Your task to perform on an android device: Open Youtube and go to "Your channel" Image 0: 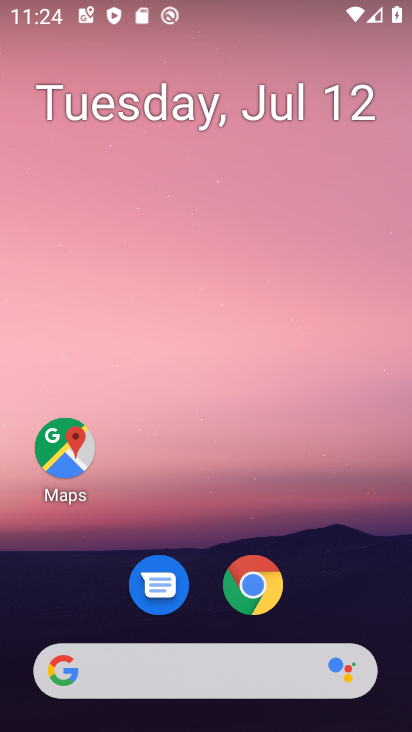
Step 0: drag from (324, 347) to (326, 51)
Your task to perform on an android device: Open Youtube and go to "Your channel" Image 1: 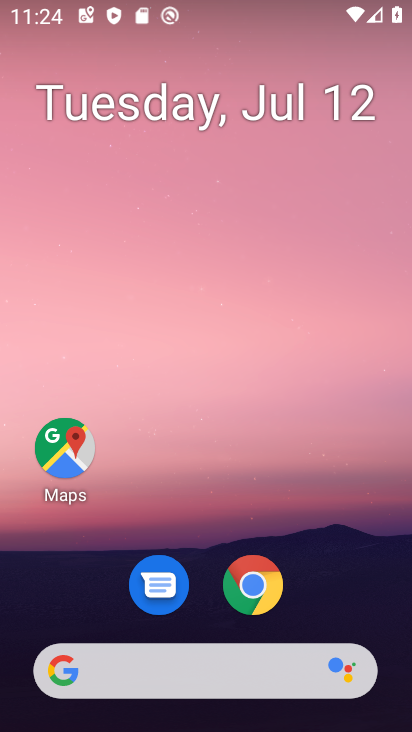
Step 1: drag from (309, 568) to (308, 25)
Your task to perform on an android device: Open Youtube and go to "Your channel" Image 2: 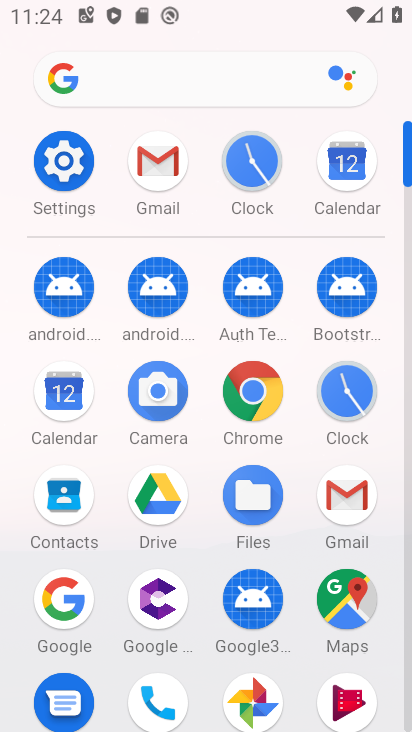
Step 2: drag from (309, 566) to (316, 264)
Your task to perform on an android device: Open Youtube and go to "Your channel" Image 3: 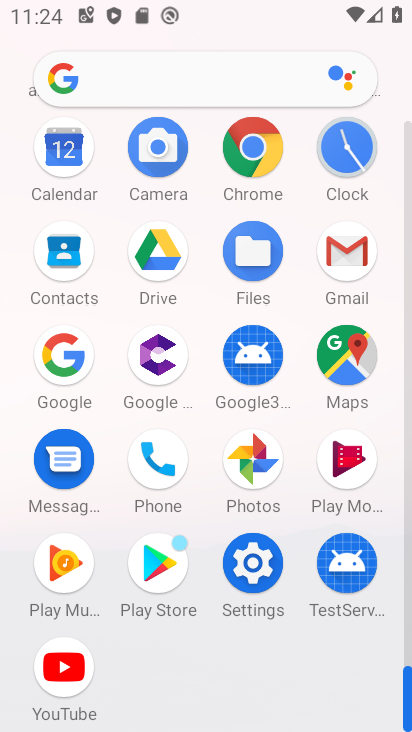
Step 3: click (71, 671)
Your task to perform on an android device: Open Youtube and go to "Your channel" Image 4: 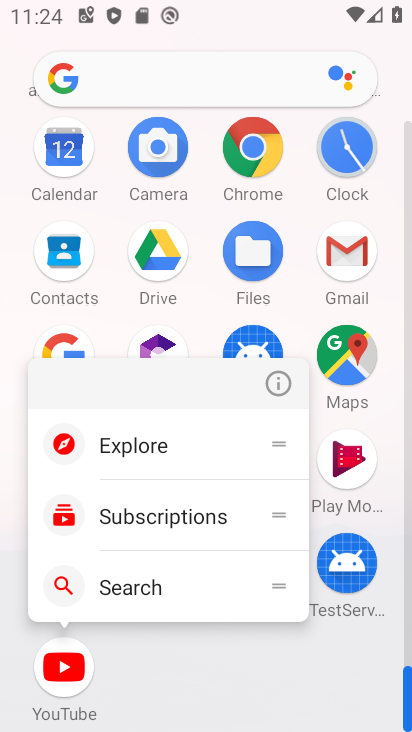
Step 4: click (77, 671)
Your task to perform on an android device: Open Youtube and go to "Your channel" Image 5: 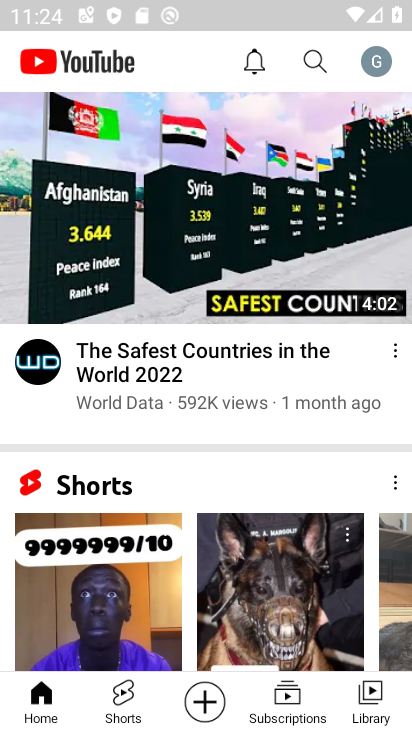
Step 5: click (374, 65)
Your task to perform on an android device: Open Youtube and go to "Your channel" Image 6: 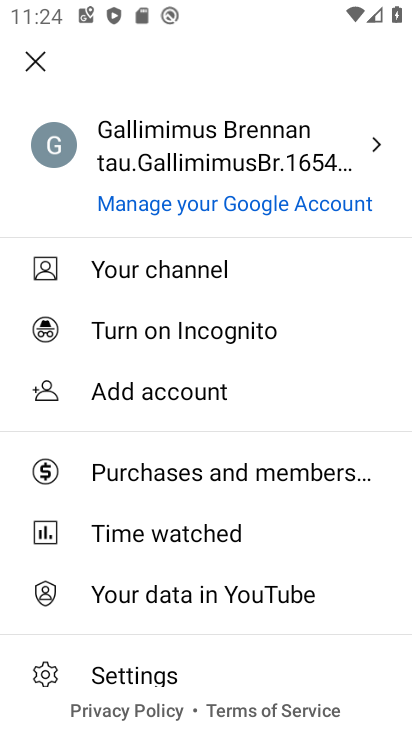
Step 6: click (196, 268)
Your task to perform on an android device: Open Youtube and go to "Your channel" Image 7: 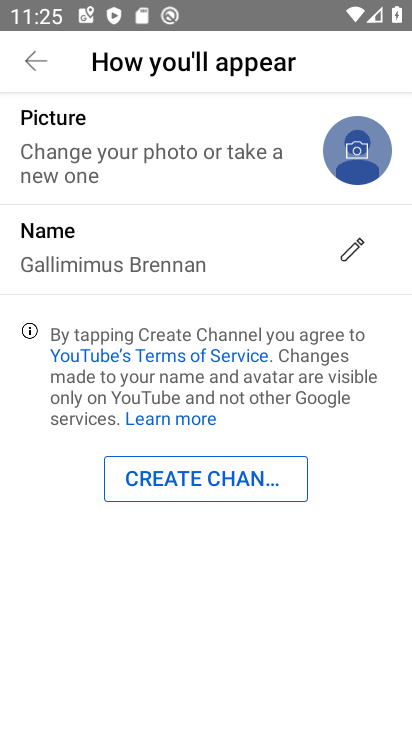
Step 7: task complete